Your task to perform on an android device: Show me productivity apps on the Play Store Image 0: 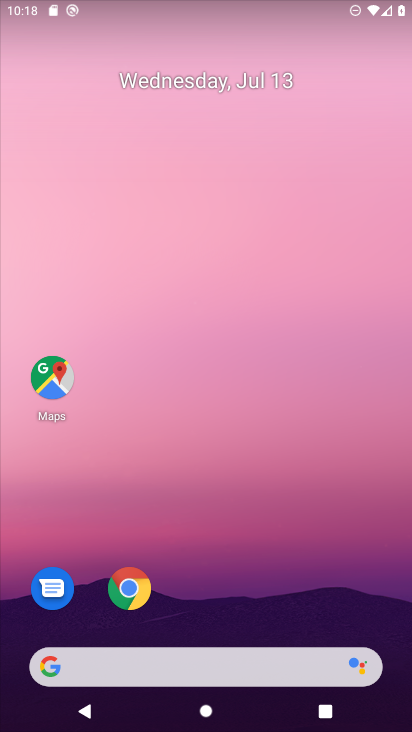
Step 0: drag from (217, 619) to (236, 14)
Your task to perform on an android device: Show me productivity apps on the Play Store Image 1: 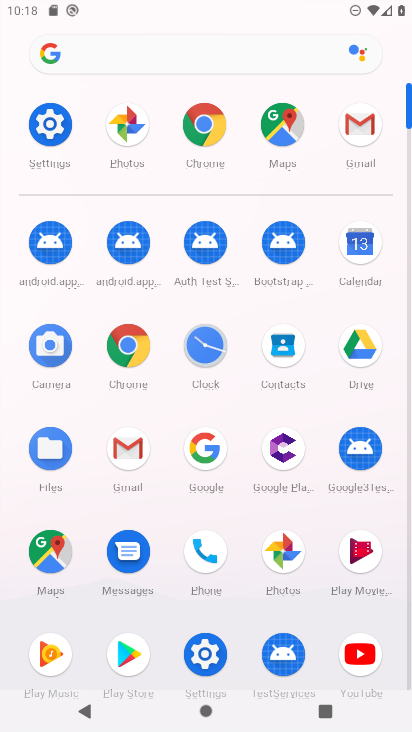
Step 1: click (135, 646)
Your task to perform on an android device: Show me productivity apps on the Play Store Image 2: 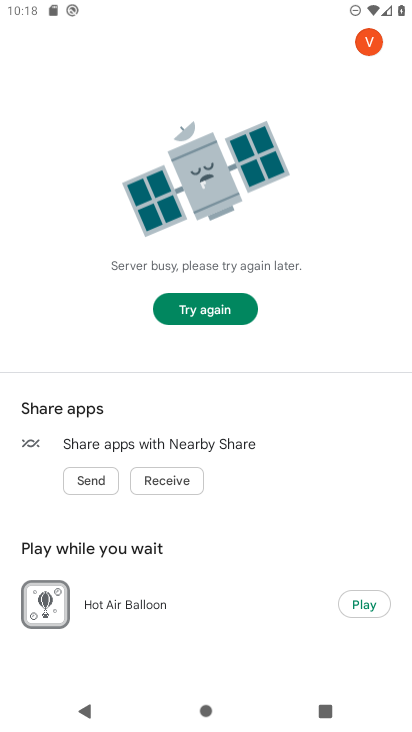
Step 2: click (197, 315)
Your task to perform on an android device: Show me productivity apps on the Play Store Image 3: 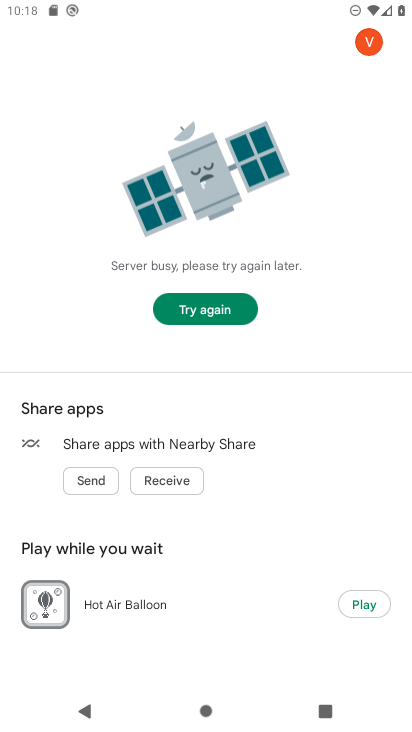
Step 3: task complete